Your task to perform on an android device: Go to internet settings Image 0: 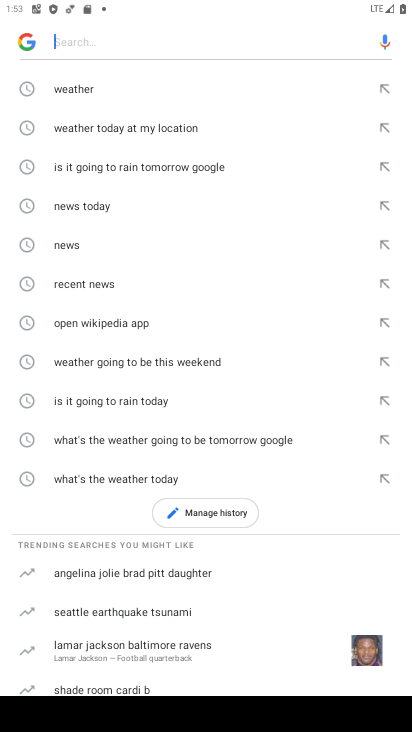
Step 0: press back button
Your task to perform on an android device: Go to internet settings Image 1: 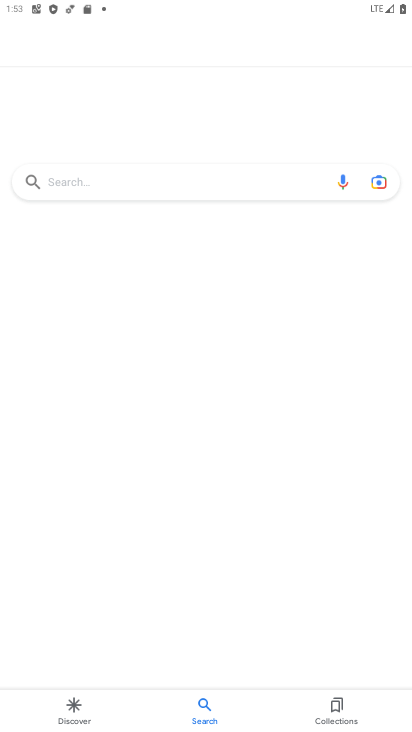
Step 1: press back button
Your task to perform on an android device: Go to internet settings Image 2: 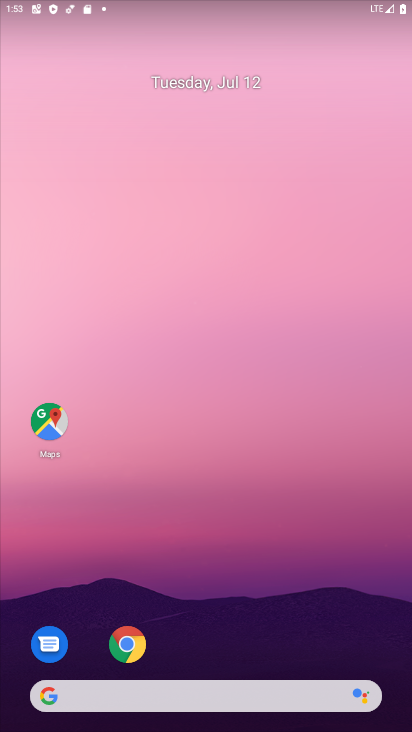
Step 2: drag from (209, 677) to (113, 134)
Your task to perform on an android device: Go to internet settings Image 3: 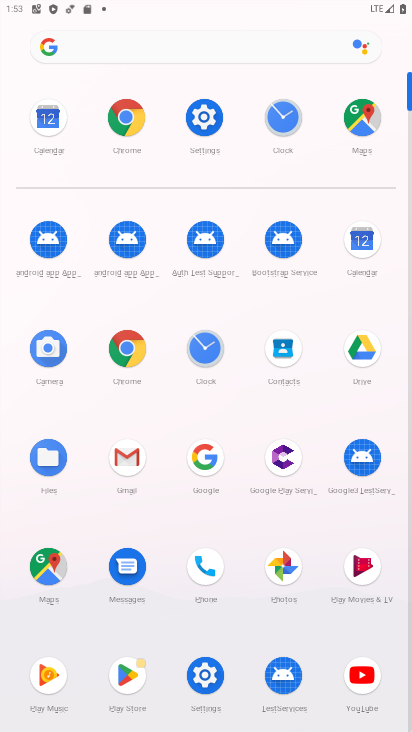
Step 3: click (191, 123)
Your task to perform on an android device: Go to internet settings Image 4: 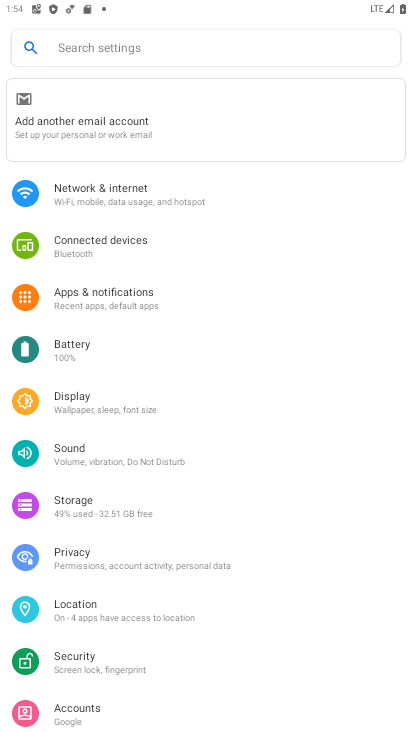
Step 4: click (112, 195)
Your task to perform on an android device: Go to internet settings Image 5: 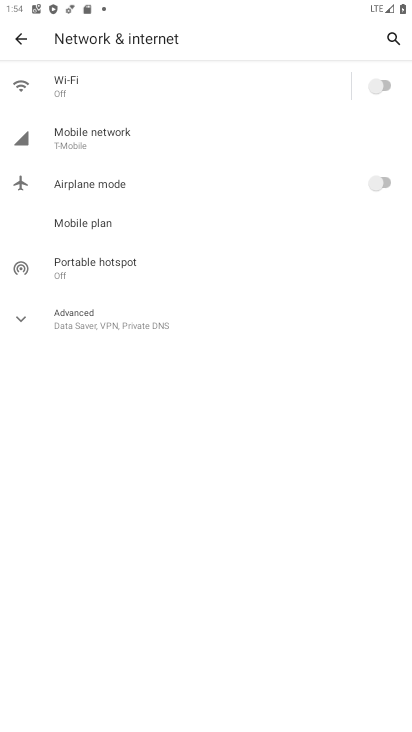
Step 5: click (124, 137)
Your task to perform on an android device: Go to internet settings Image 6: 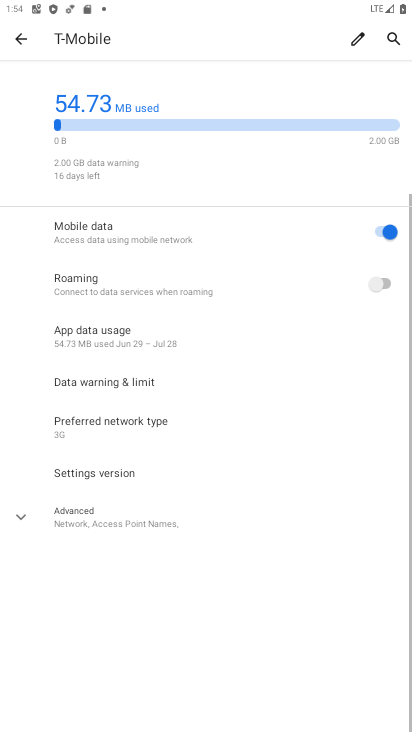
Step 6: task complete